Your task to perform on an android device: Open wifi settings Image 0: 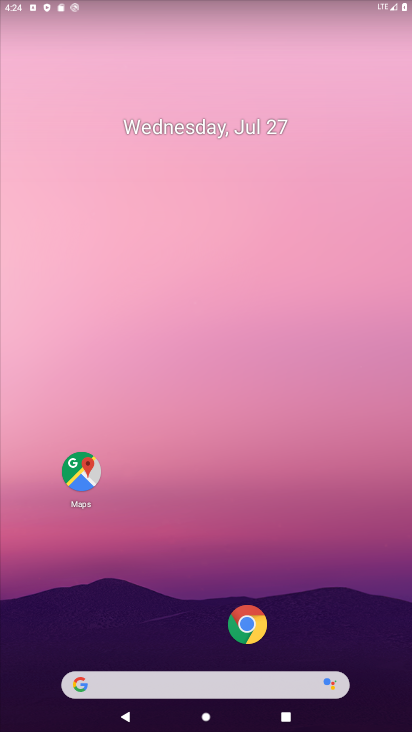
Step 0: drag from (217, 9) to (265, 129)
Your task to perform on an android device: Open wifi settings Image 1: 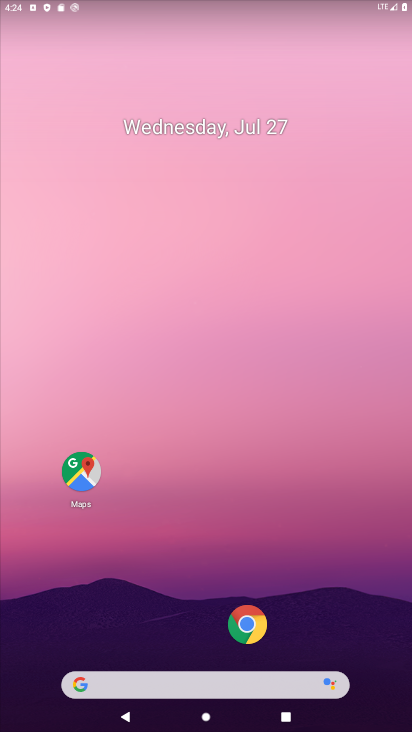
Step 1: drag from (115, 8) to (186, 329)
Your task to perform on an android device: Open wifi settings Image 2: 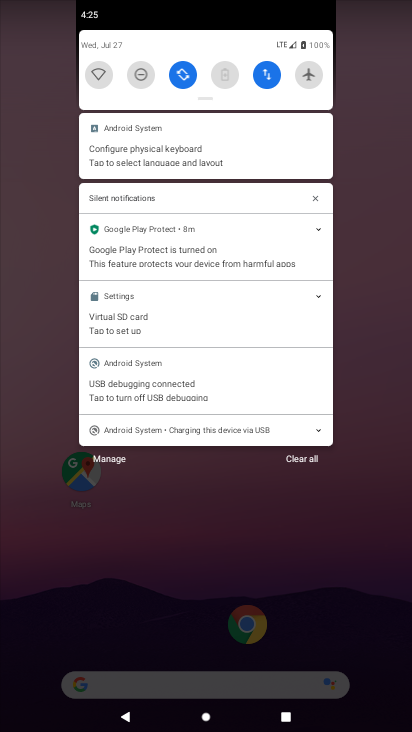
Step 2: click (103, 71)
Your task to perform on an android device: Open wifi settings Image 3: 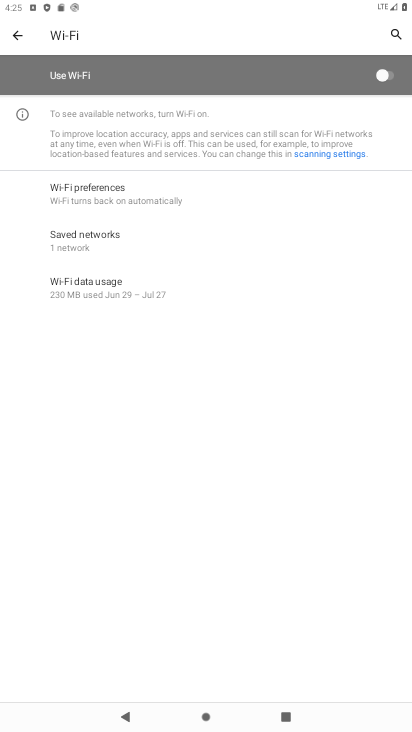
Step 3: task complete